Your task to perform on an android device: turn on priority inbox in the gmail app Image 0: 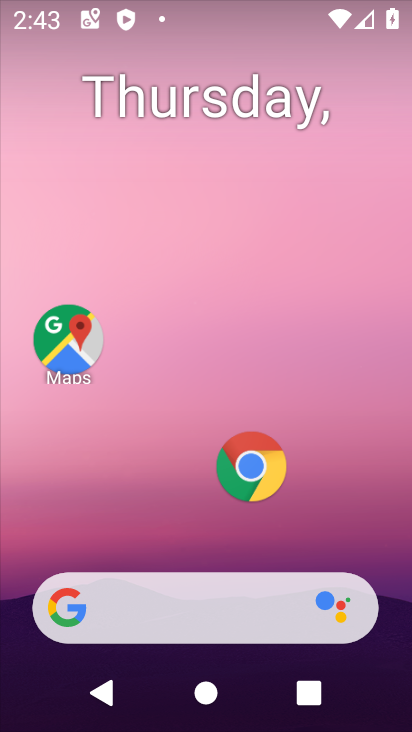
Step 0: drag from (184, 551) to (228, 223)
Your task to perform on an android device: turn on priority inbox in the gmail app Image 1: 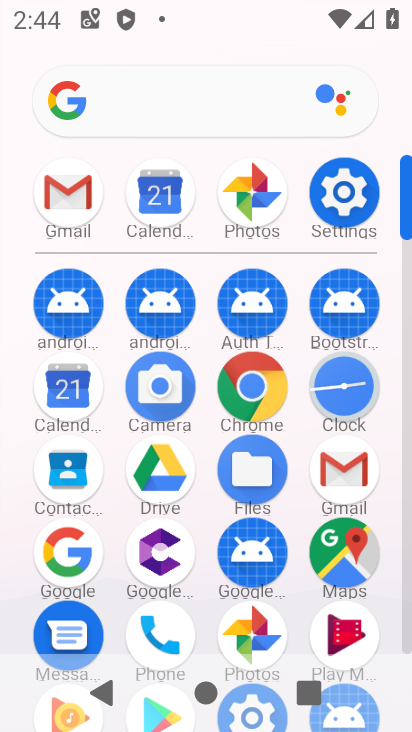
Step 1: click (73, 199)
Your task to perform on an android device: turn on priority inbox in the gmail app Image 2: 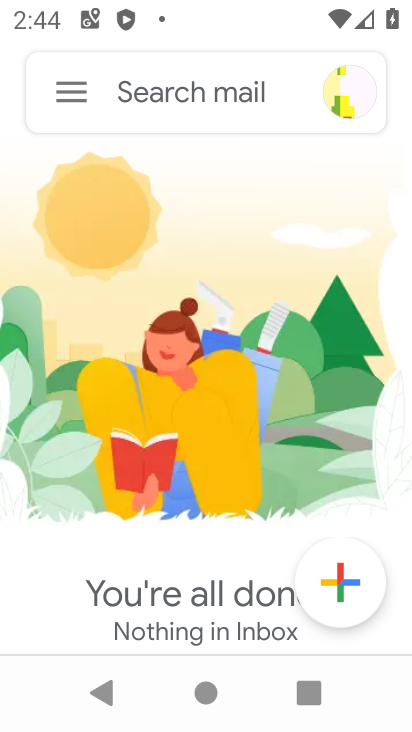
Step 2: click (81, 102)
Your task to perform on an android device: turn on priority inbox in the gmail app Image 3: 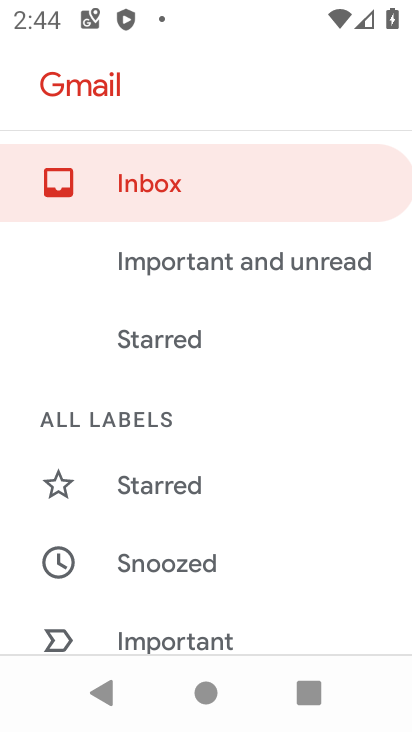
Step 3: drag from (242, 586) to (278, 258)
Your task to perform on an android device: turn on priority inbox in the gmail app Image 4: 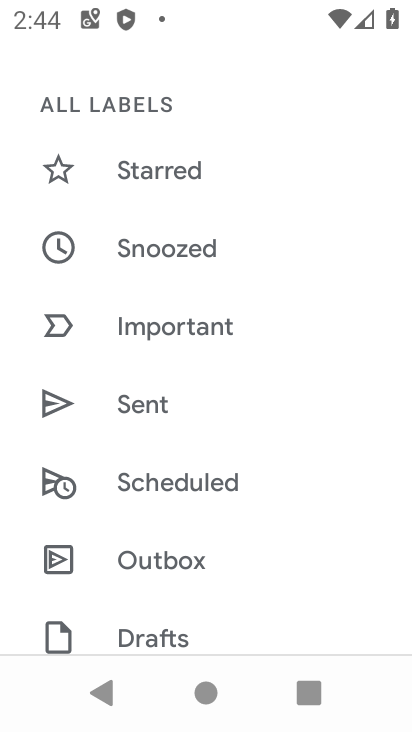
Step 4: drag from (225, 602) to (246, 305)
Your task to perform on an android device: turn on priority inbox in the gmail app Image 5: 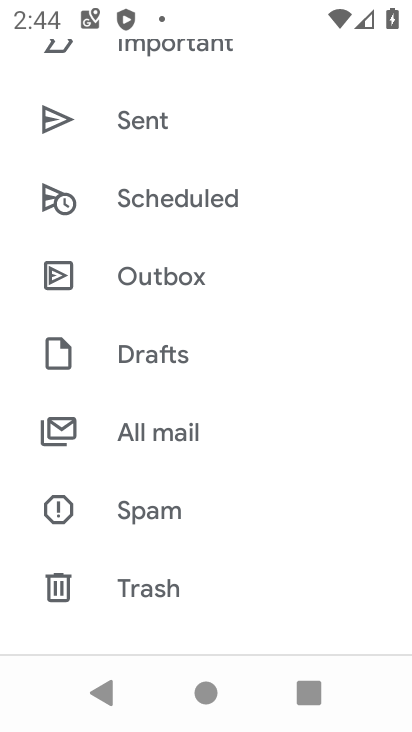
Step 5: drag from (224, 591) to (227, 384)
Your task to perform on an android device: turn on priority inbox in the gmail app Image 6: 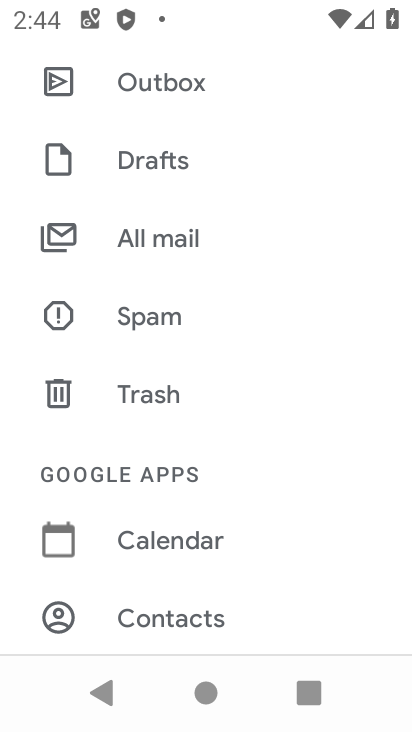
Step 6: drag from (238, 535) to (237, 300)
Your task to perform on an android device: turn on priority inbox in the gmail app Image 7: 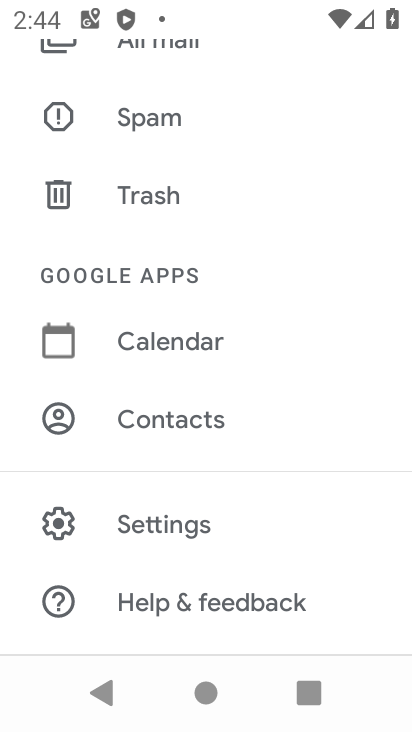
Step 7: click (214, 512)
Your task to perform on an android device: turn on priority inbox in the gmail app Image 8: 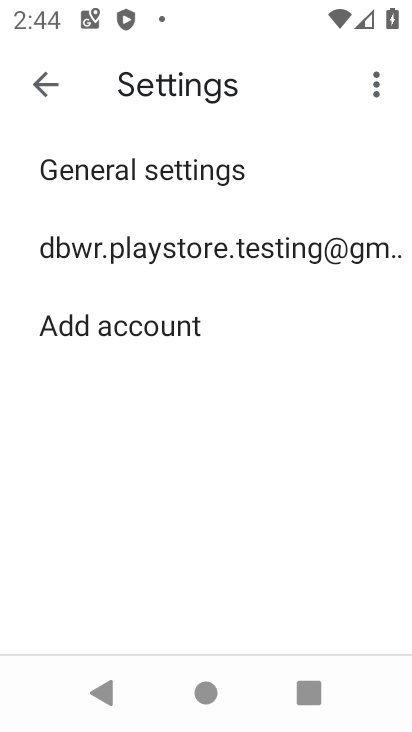
Step 8: click (248, 257)
Your task to perform on an android device: turn on priority inbox in the gmail app Image 9: 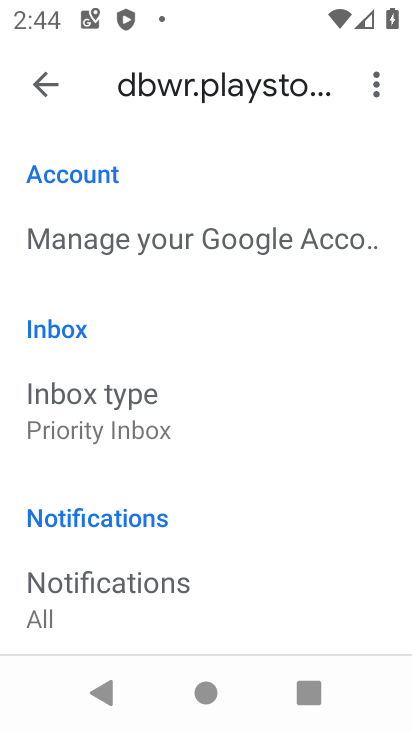
Step 9: drag from (209, 583) to (216, 310)
Your task to perform on an android device: turn on priority inbox in the gmail app Image 10: 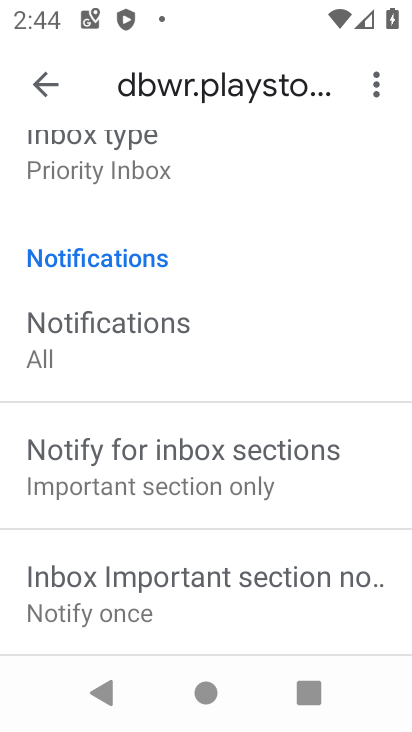
Step 10: click (201, 171)
Your task to perform on an android device: turn on priority inbox in the gmail app Image 11: 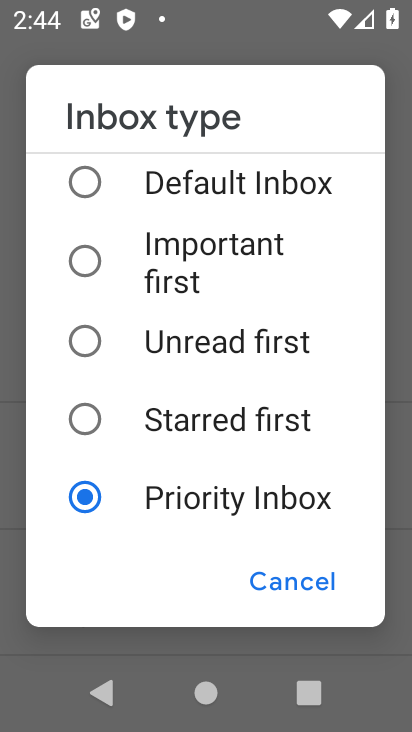
Step 11: task complete